Your task to perform on an android device: Open Google Maps Image 0: 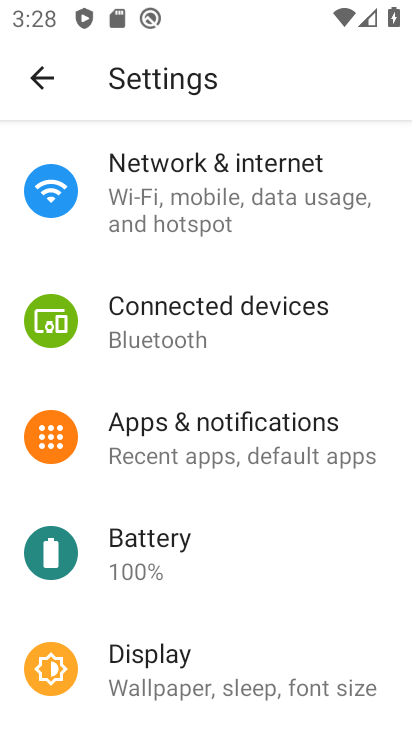
Step 0: press home button
Your task to perform on an android device: Open Google Maps Image 1: 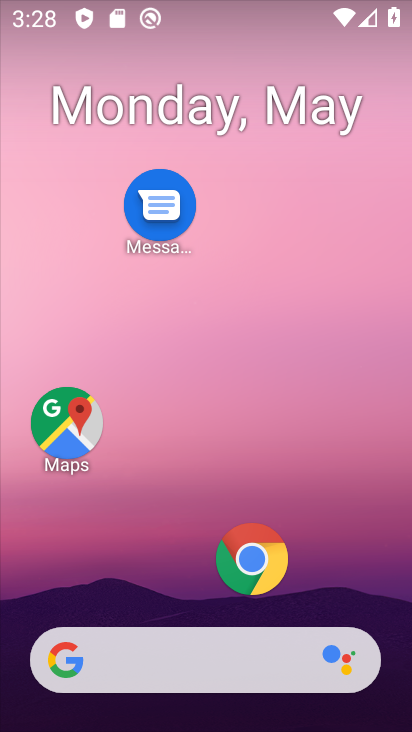
Step 1: click (56, 421)
Your task to perform on an android device: Open Google Maps Image 2: 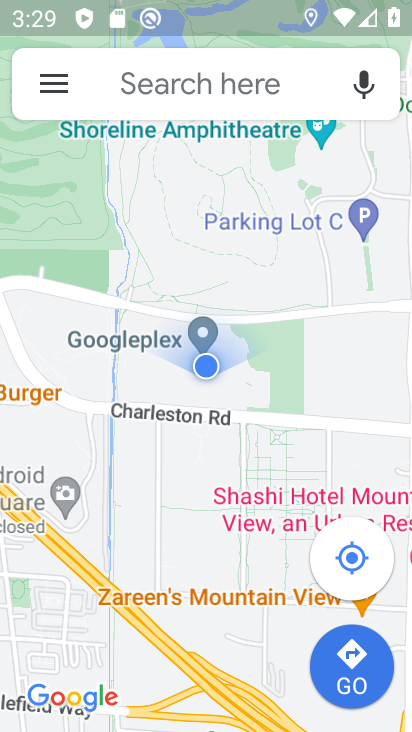
Step 2: task complete